Your task to perform on an android device: turn off sleep mode Image 0: 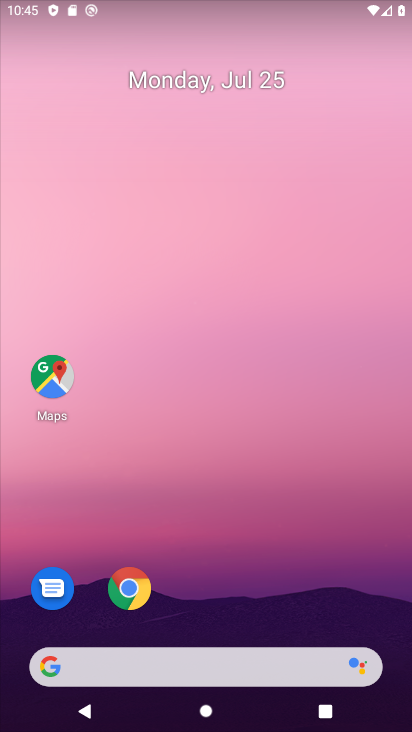
Step 0: drag from (192, 549) to (187, 14)
Your task to perform on an android device: turn off sleep mode Image 1: 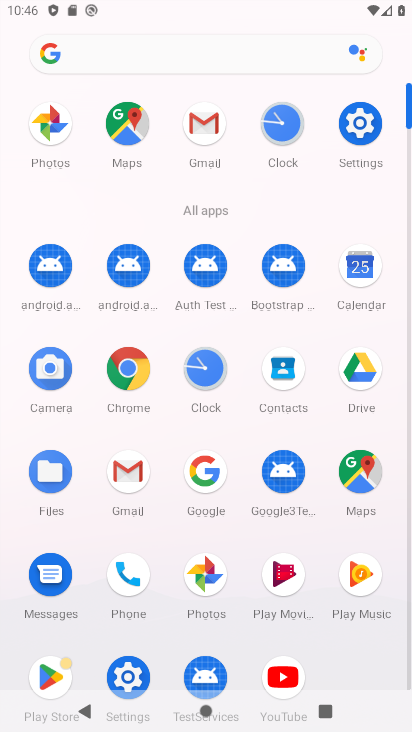
Step 1: click (364, 120)
Your task to perform on an android device: turn off sleep mode Image 2: 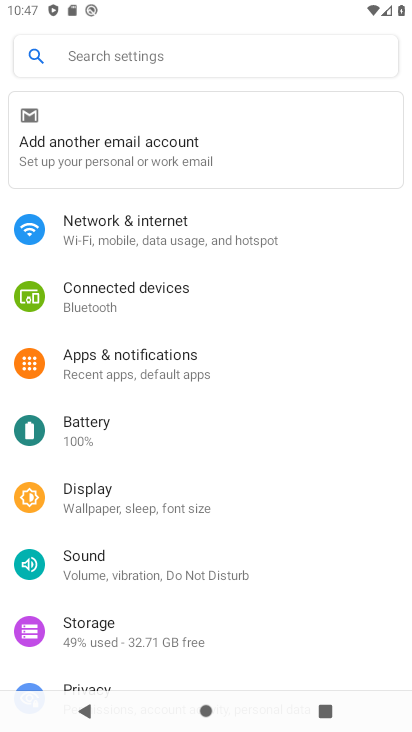
Step 2: task complete